Your task to perform on an android device: change the clock display to analog Image 0: 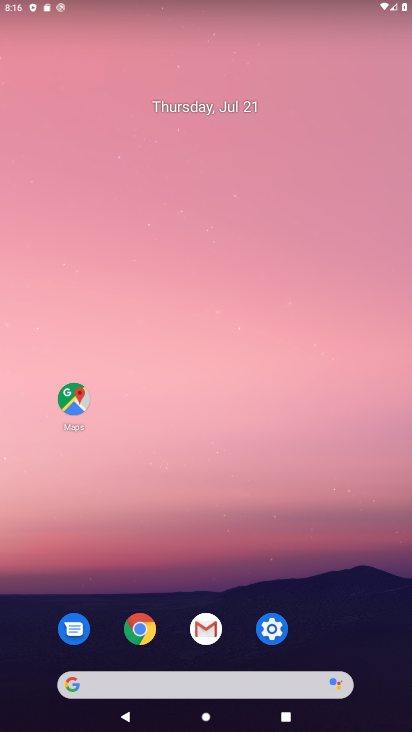
Step 0: drag from (257, 583) to (250, 202)
Your task to perform on an android device: change the clock display to analog Image 1: 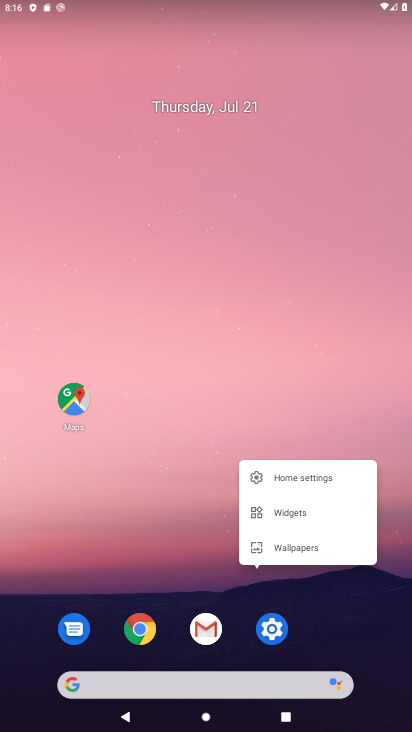
Step 1: click (175, 524)
Your task to perform on an android device: change the clock display to analog Image 2: 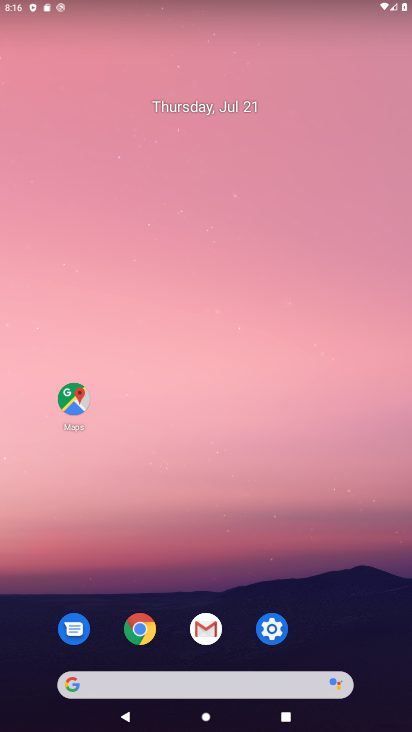
Step 2: drag from (158, 704) to (177, 96)
Your task to perform on an android device: change the clock display to analog Image 3: 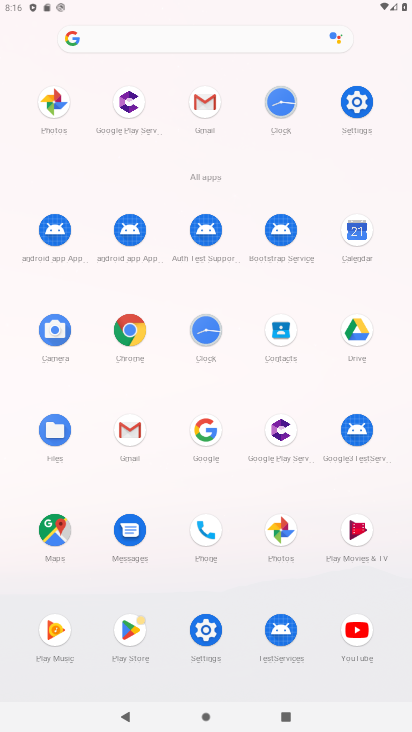
Step 3: click (214, 334)
Your task to perform on an android device: change the clock display to analog Image 4: 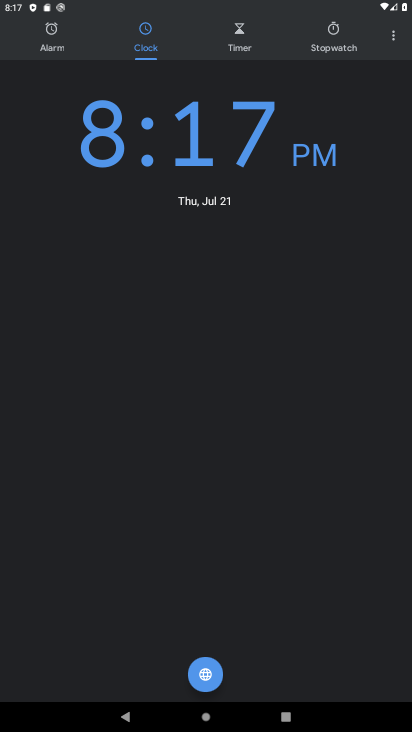
Step 4: click (393, 44)
Your task to perform on an android device: change the clock display to analog Image 5: 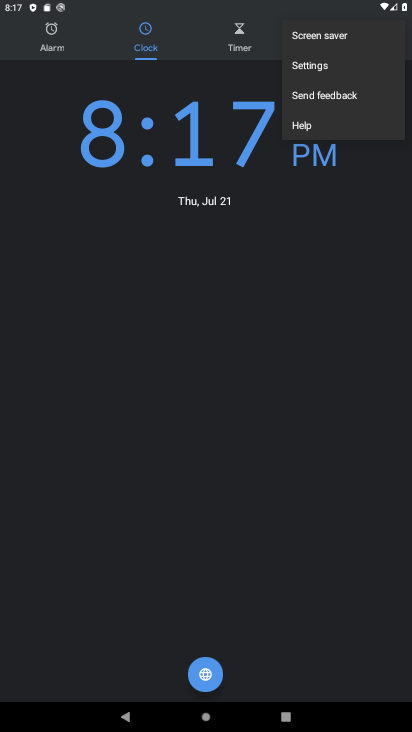
Step 5: click (332, 71)
Your task to perform on an android device: change the clock display to analog Image 6: 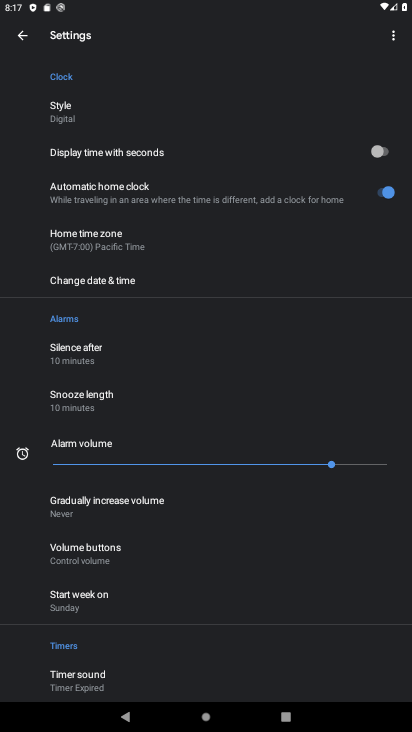
Step 6: task complete